Your task to perform on an android device: Is it going to rain today? Image 0: 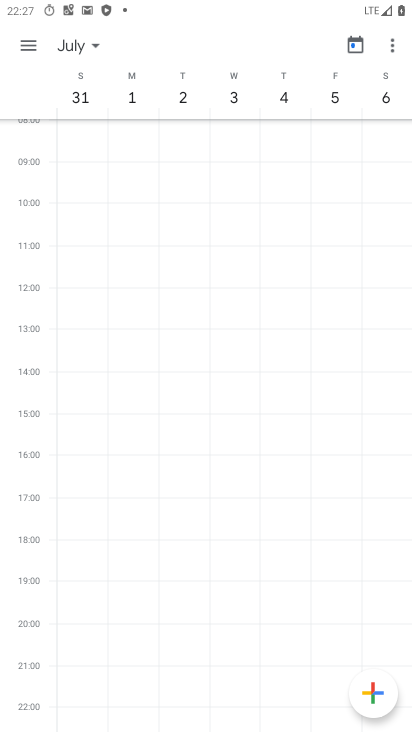
Step 0: press home button
Your task to perform on an android device: Is it going to rain today? Image 1: 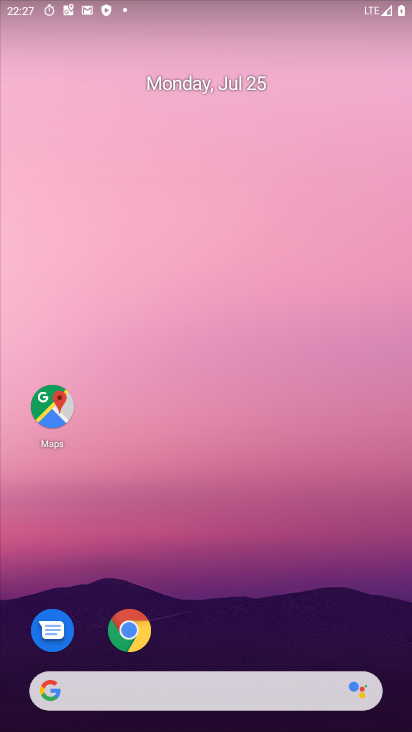
Step 1: click (50, 690)
Your task to perform on an android device: Is it going to rain today? Image 2: 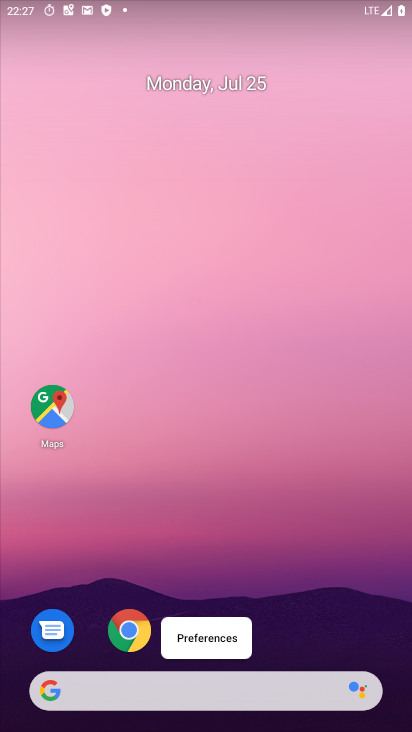
Step 2: click (48, 692)
Your task to perform on an android device: Is it going to rain today? Image 3: 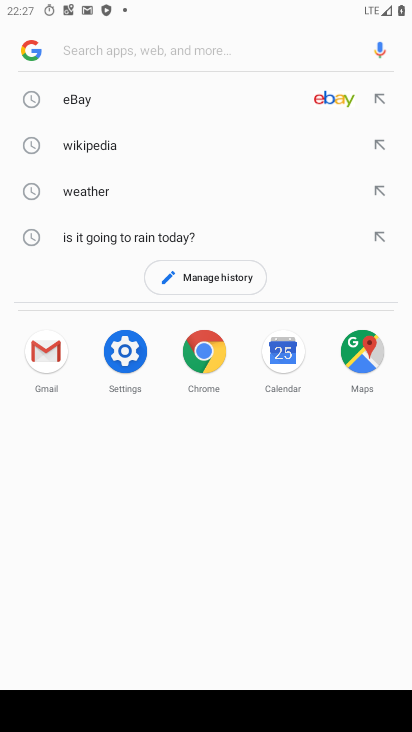
Step 3: click (112, 236)
Your task to perform on an android device: Is it going to rain today? Image 4: 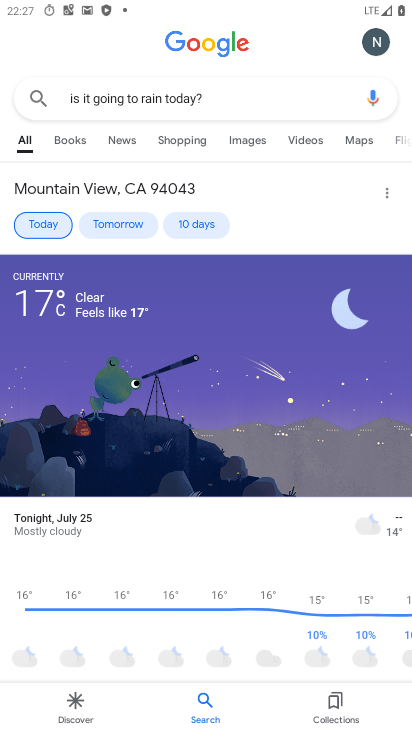
Step 4: task complete